Your task to perform on an android device: Open Google Chrome and click the shortcut for Amazon.com Image 0: 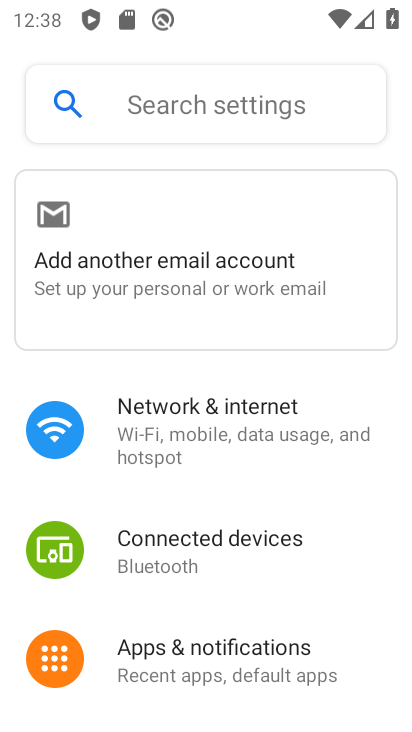
Step 0: press home button
Your task to perform on an android device: Open Google Chrome and click the shortcut for Amazon.com Image 1: 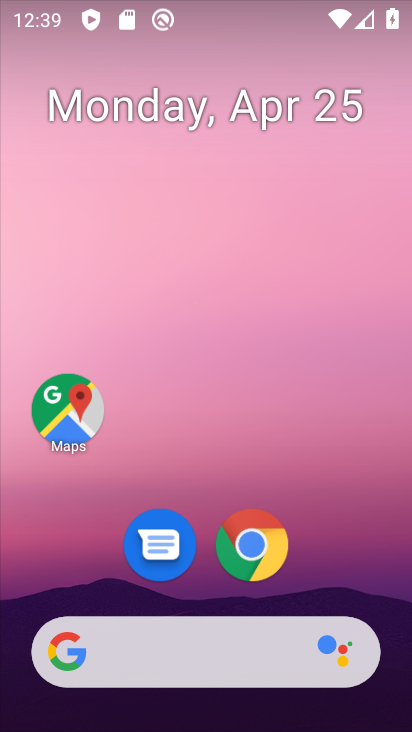
Step 1: click (258, 552)
Your task to perform on an android device: Open Google Chrome and click the shortcut for Amazon.com Image 2: 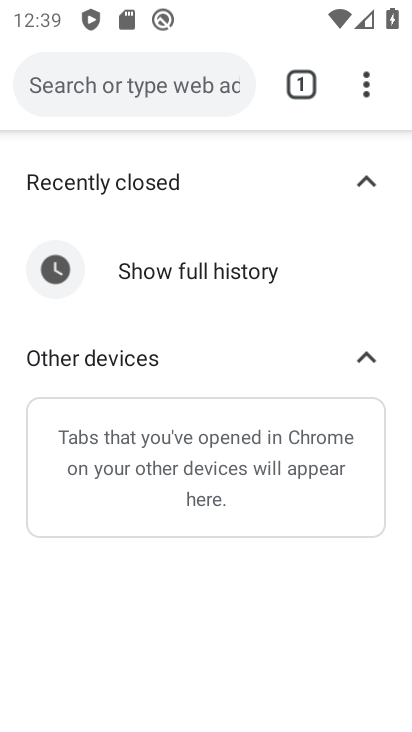
Step 2: click (291, 80)
Your task to perform on an android device: Open Google Chrome and click the shortcut for Amazon.com Image 3: 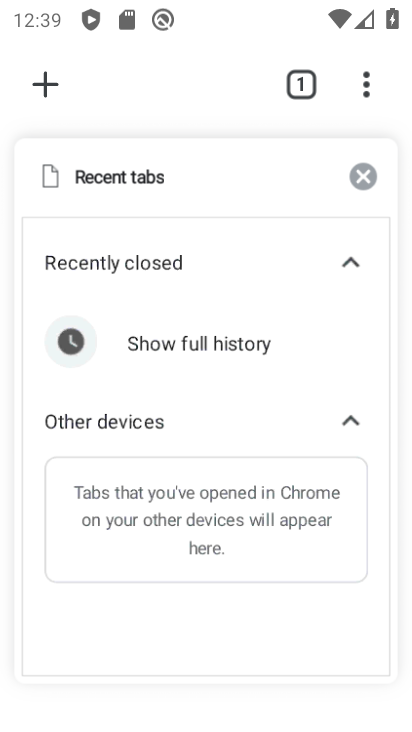
Step 3: click (36, 78)
Your task to perform on an android device: Open Google Chrome and click the shortcut for Amazon.com Image 4: 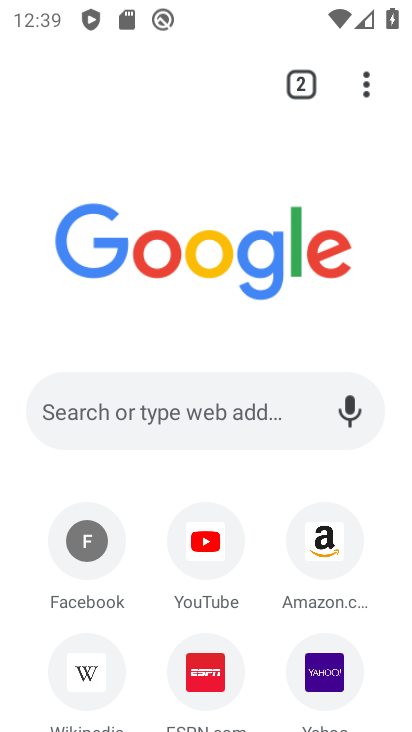
Step 4: click (333, 541)
Your task to perform on an android device: Open Google Chrome and click the shortcut for Amazon.com Image 5: 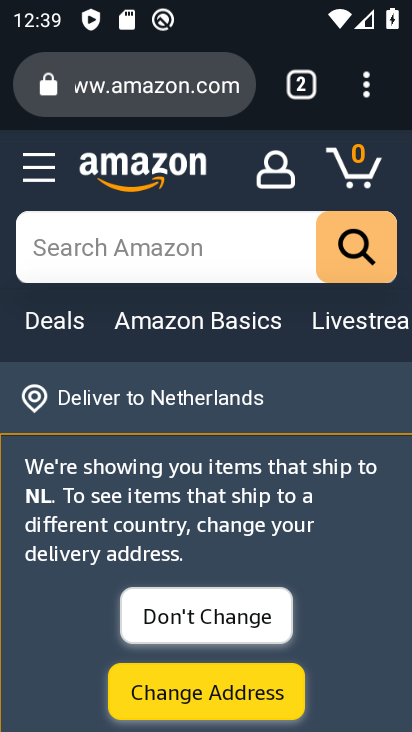
Step 5: task complete